Your task to perform on an android device: see creations saved in the google photos Image 0: 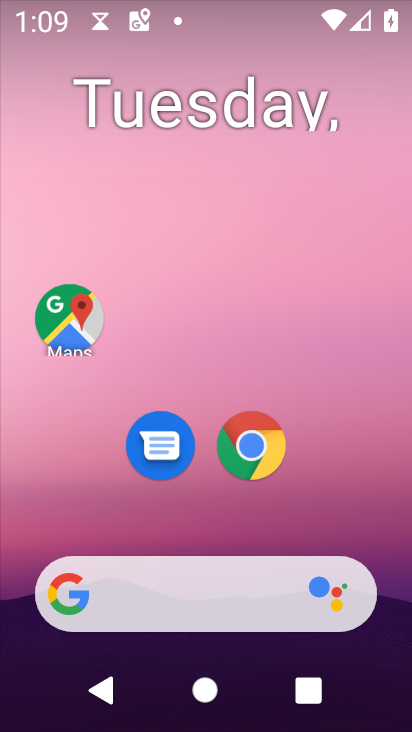
Step 0: drag from (293, 623) to (325, 33)
Your task to perform on an android device: see creations saved in the google photos Image 1: 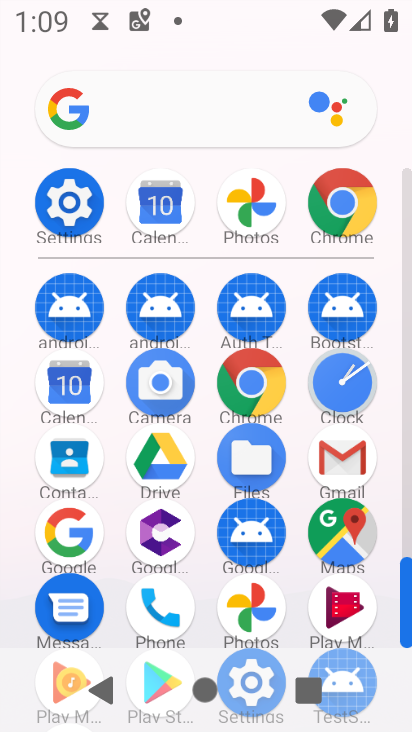
Step 1: click (252, 604)
Your task to perform on an android device: see creations saved in the google photos Image 2: 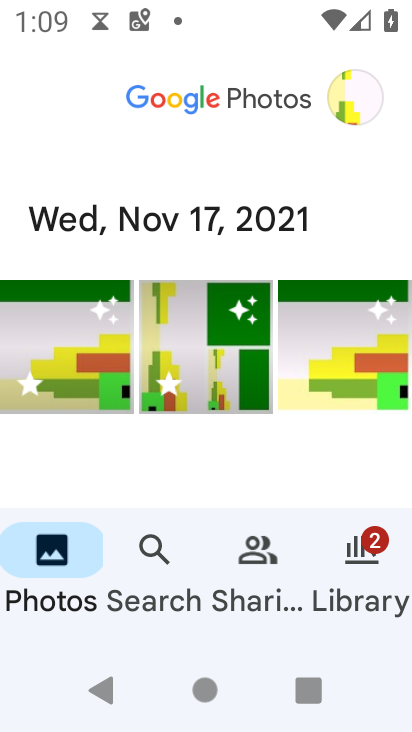
Step 2: click (241, 548)
Your task to perform on an android device: see creations saved in the google photos Image 3: 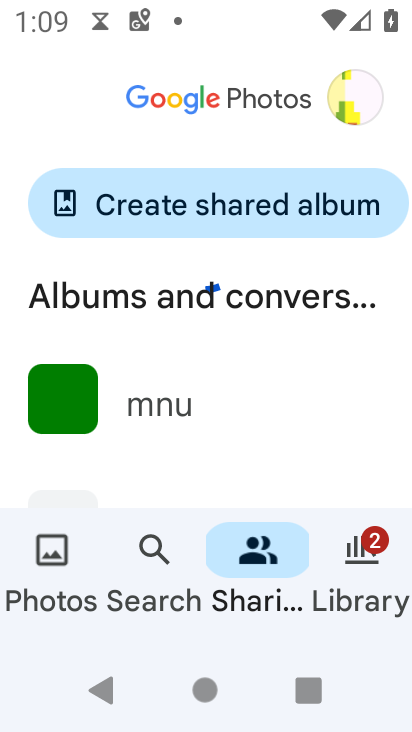
Step 3: task complete